Your task to perform on an android device: toggle sleep mode Image 0: 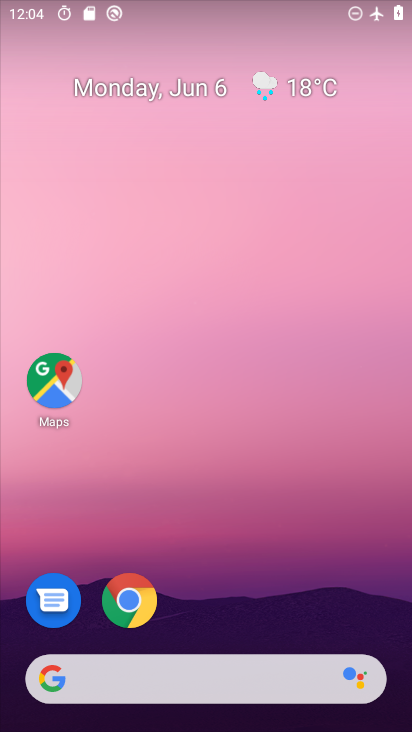
Step 0: drag from (232, 575) to (232, 164)
Your task to perform on an android device: toggle sleep mode Image 1: 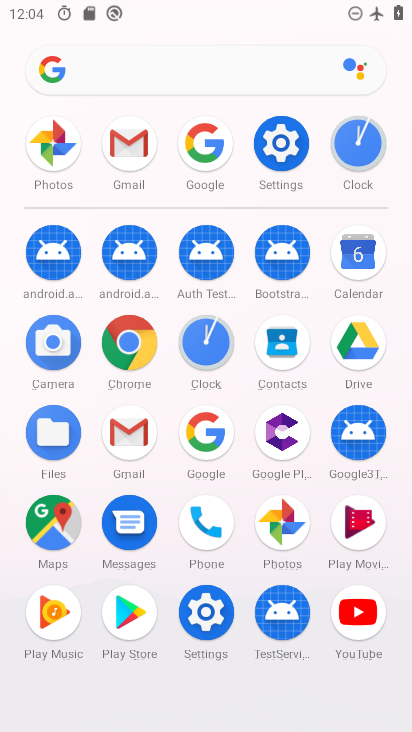
Step 1: click (299, 138)
Your task to perform on an android device: toggle sleep mode Image 2: 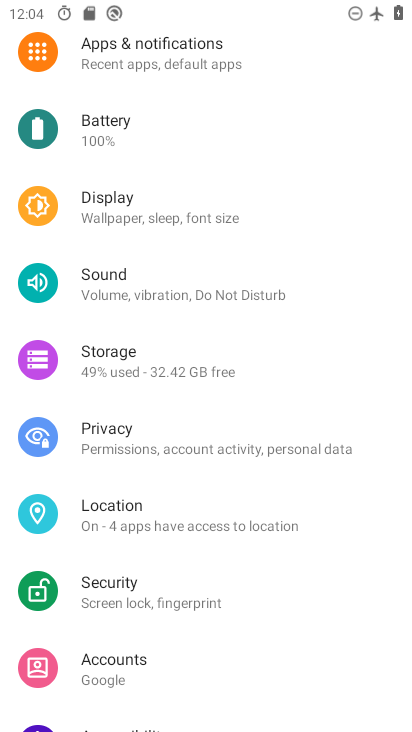
Step 2: click (196, 217)
Your task to perform on an android device: toggle sleep mode Image 3: 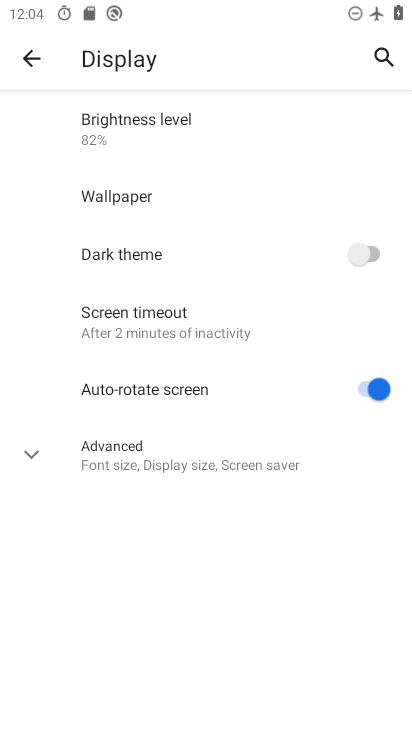
Step 3: click (167, 311)
Your task to perform on an android device: toggle sleep mode Image 4: 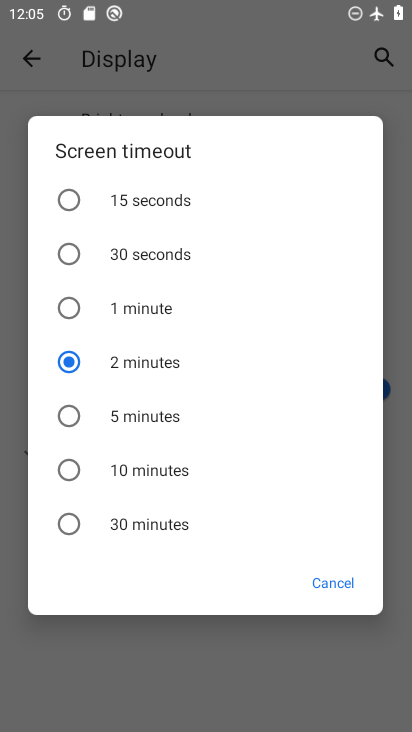
Step 4: click (160, 427)
Your task to perform on an android device: toggle sleep mode Image 5: 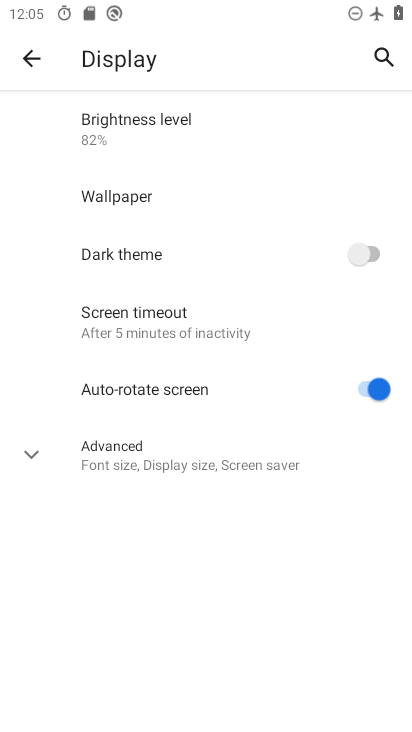
Step 5: task complete